Your task to perform on an android device: set an alarm Image 0: 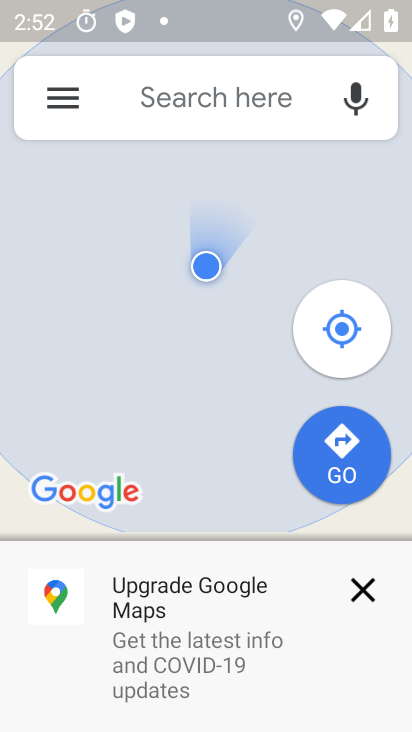
Step 0: press home button
Your task to perform on an android device: set an alarm Image 1: 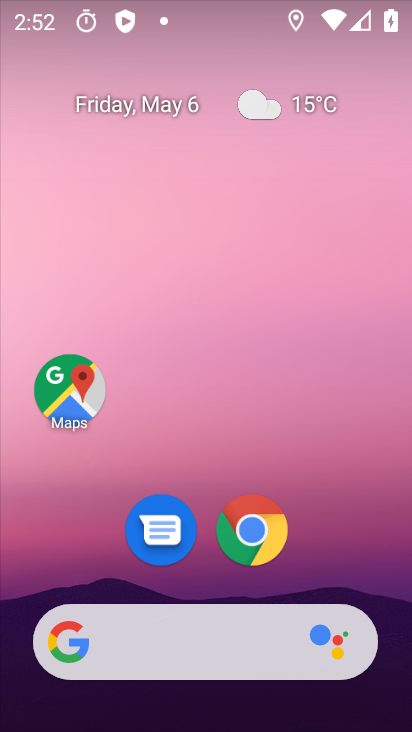
Step 1: drag from (370, 520) to (7, 336)
Your task to perform on an android device: set an alarm Image 2: 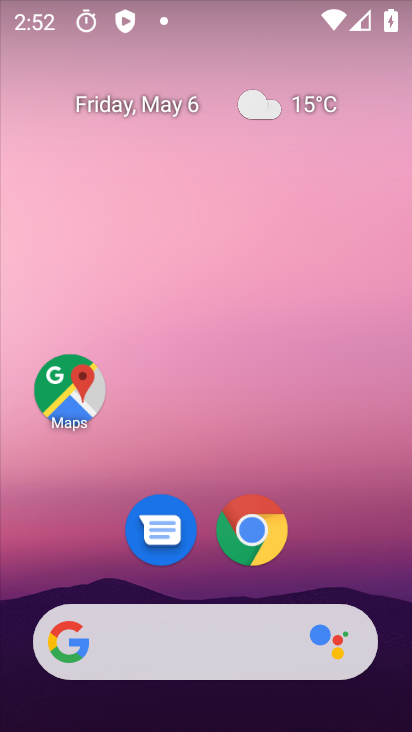
Step 2: drag from (385, 475) to (403, 91)
Your task to perform on an android device: set an alarm Image 3: 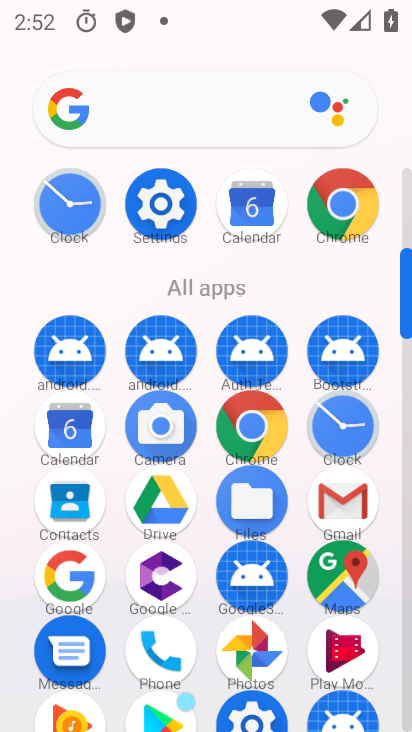
Step 3: click (80, 226)
Your task to perform on an android device: set an alarm Image 4: 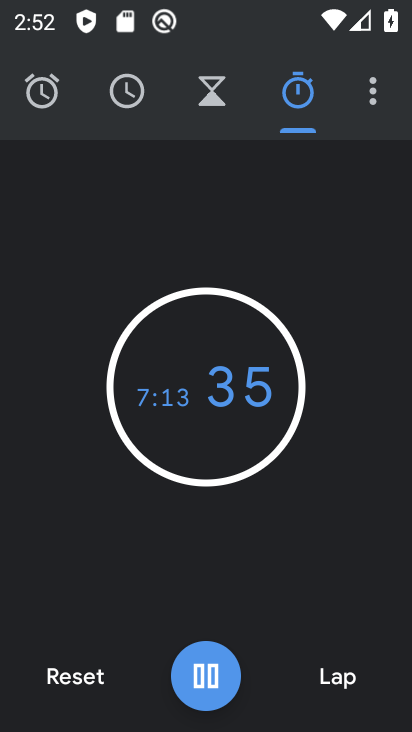
Step 4: click (55, 91)
Your task to perform on an android device: set an alarm Image 5: 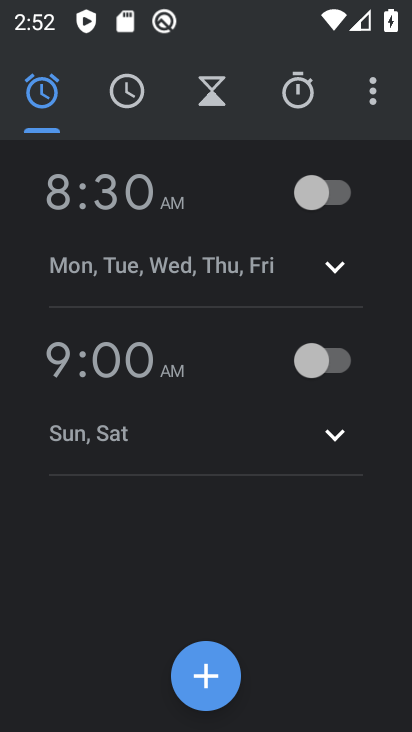
Step 5: click (349, 201)
Your task to perform on an android device: set an alarm Image 6: 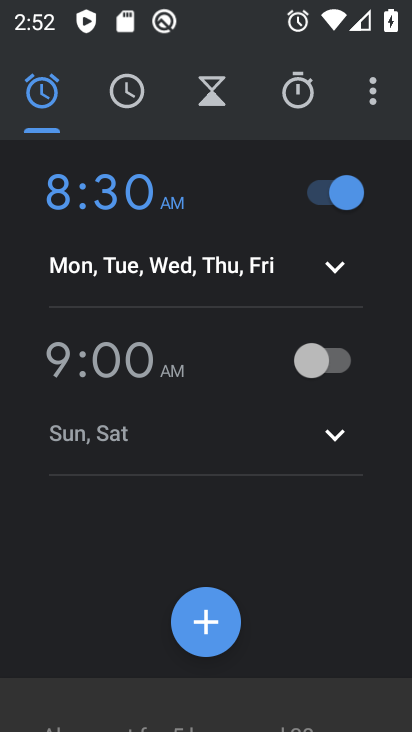
Step 6: task complete